Your task to perform on an android device: Open the web browser Image 0: 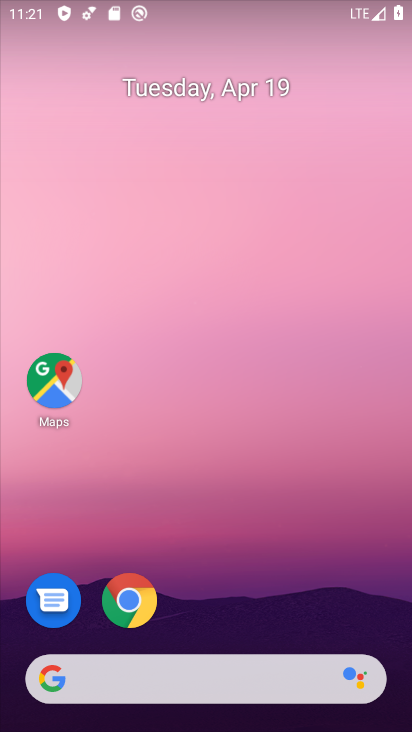
Step 0: click (128, 604)
Your task to perform on an android device: Open the web browser Image 1: 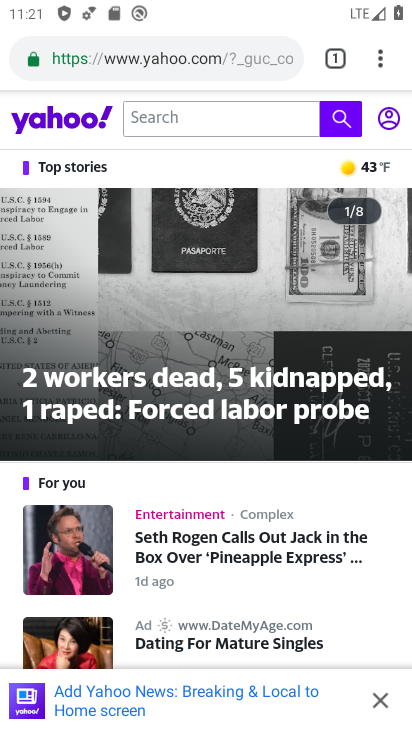
Step 1: task complete